Your task to perform on an android device: Open calendar and show me the second week of next month Image 0: 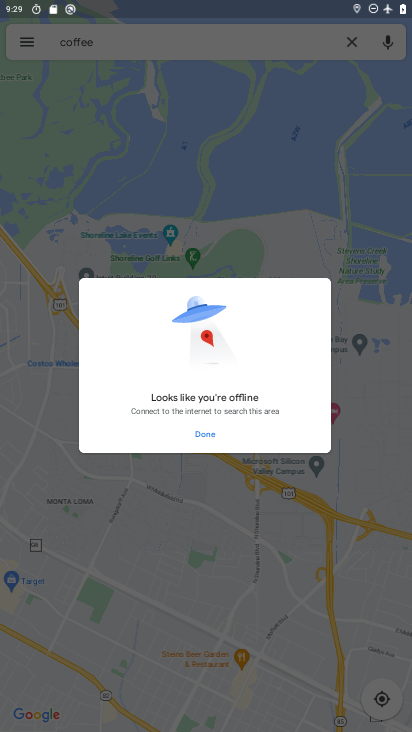
Step 0: press home button
Your task to perform on an android device: Open calendar and show me the second week of next month Image 1: 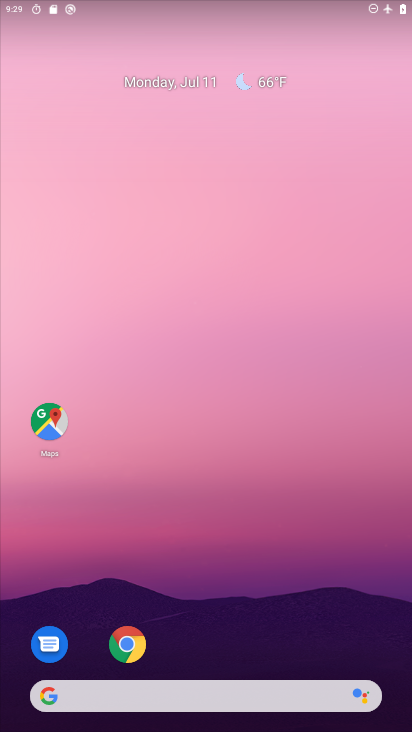
Step 1: drag from (310, 615) to (278, 160)
Your task to perform on an android device: Open calendar and show me the second week of next month Image 2: 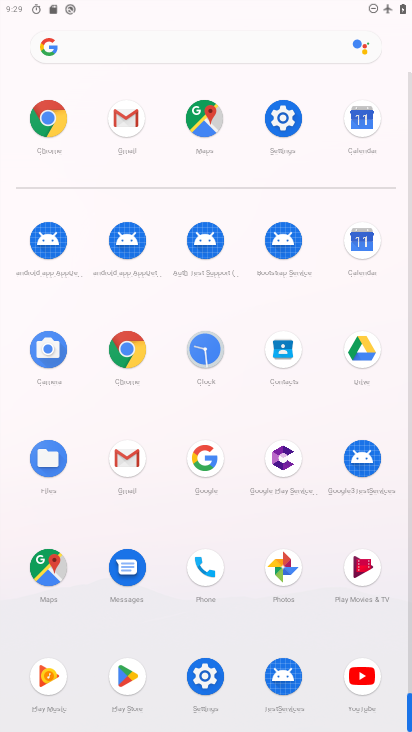
Step 2: click (363, 239)
Your task to perform on an android device: Open calendar and show me the second week of next month Image 3: 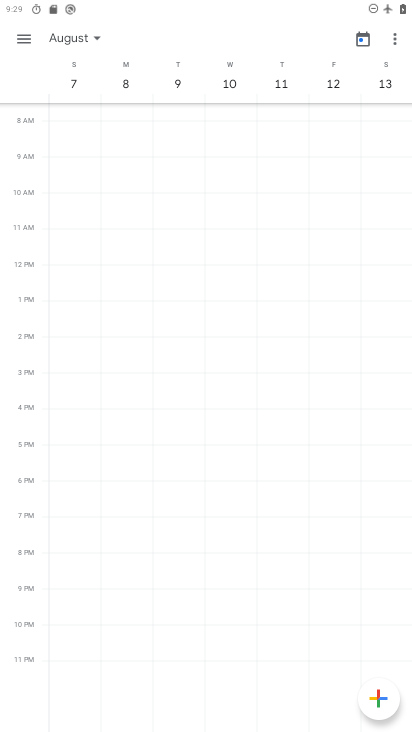
Step 3: task complete